Your task to perform on an android device: turn off smart reply in the gmail app Image 0: 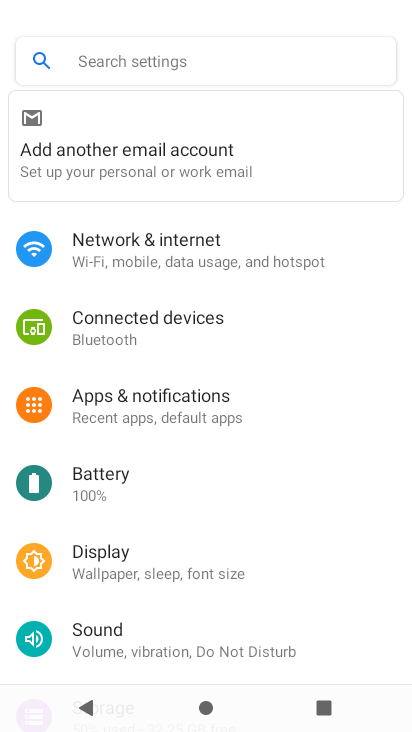
Step 0: press home button
Your task to perform on an android device: turn off smart reply in the gmail app Image 1: 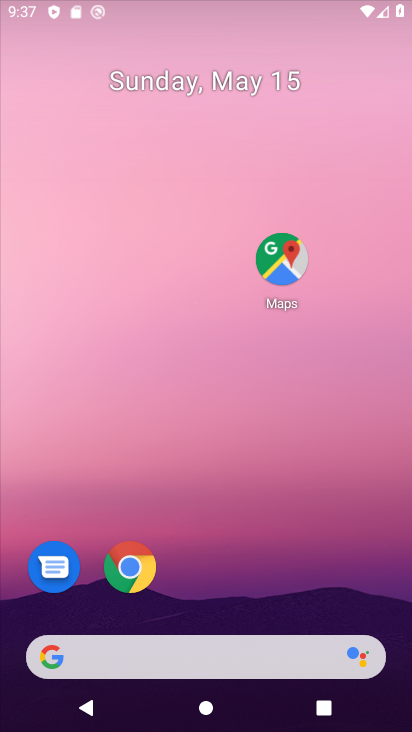
Step 1: drag from (253, 562) to (260, 59)
Your task to perform on an android device: turn off smart reply in the gmail app Image 2: 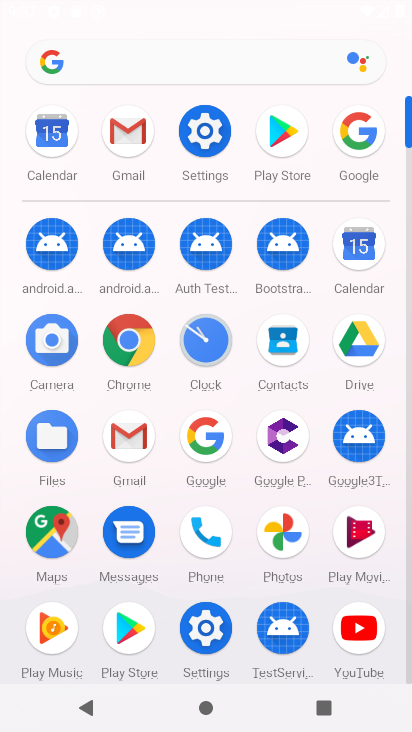
Step 2: click (132, 125)
Your task to perform on an android device: turn off smart reply in the gmail app Image 3: 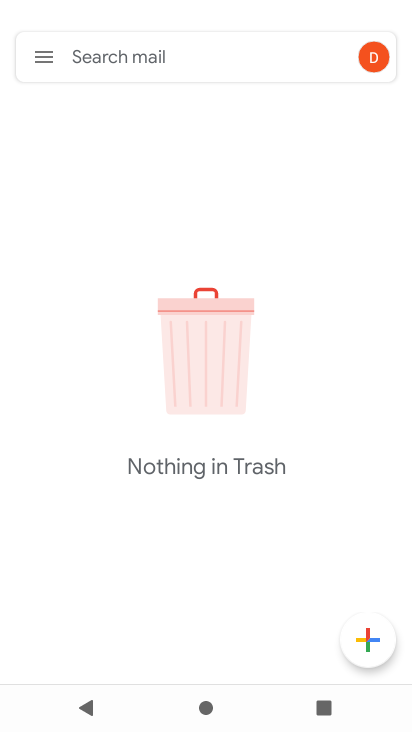
Step 3: click (42, 51)
Your task to perform on an android device: turn off smart reply in the gmail app Image 4: 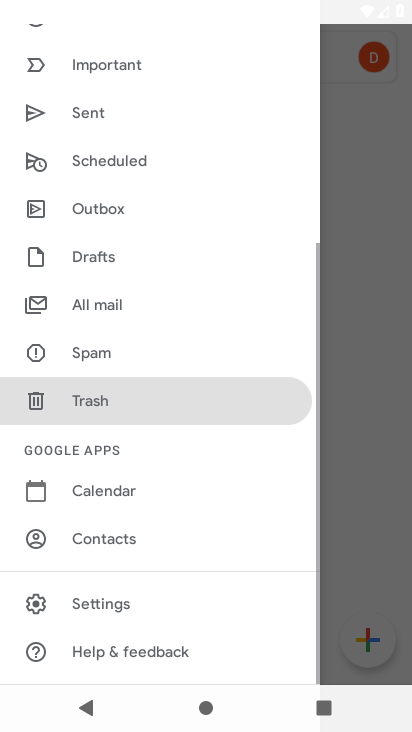
Step 4: click (105, 590)
Your task to perform on an android device: turn off smart reply in the gmail app Image 5: 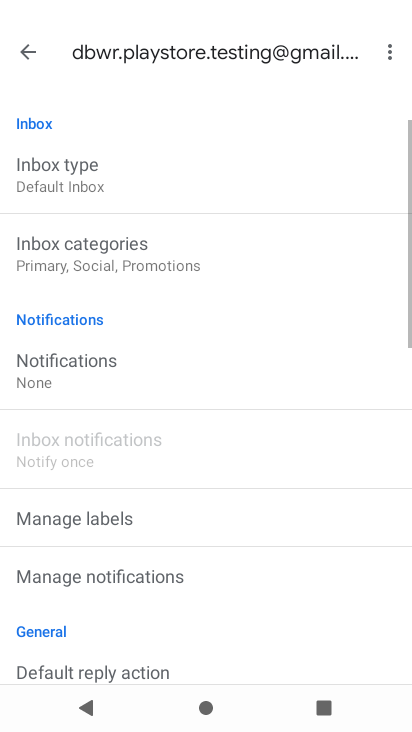
Step 5: task complete